Your task to perform on an android device: change the clock display to digital Image 0: 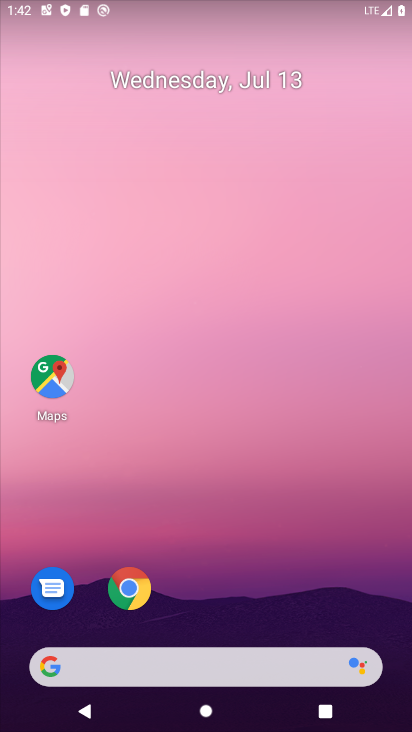
Step 0: drag from (402, 665) to (347, 172)
Your task to perform on an android device: change the clock display to digital Image 1: 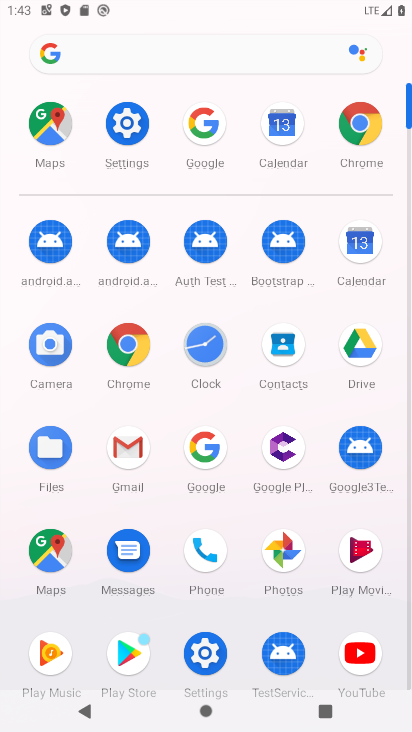
Step 1: click (133, 131)
Your task to perform on an android device: change the clock display to digital Image 2: 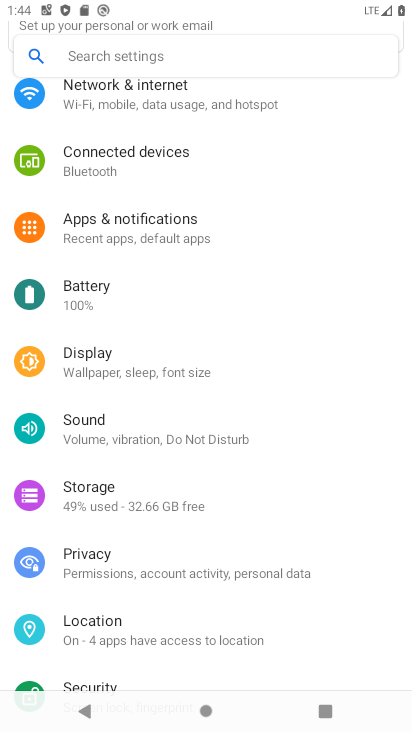
Step 2: click (89, 361)
Your task to perform on an android device: change the clock display to digital Image 3: 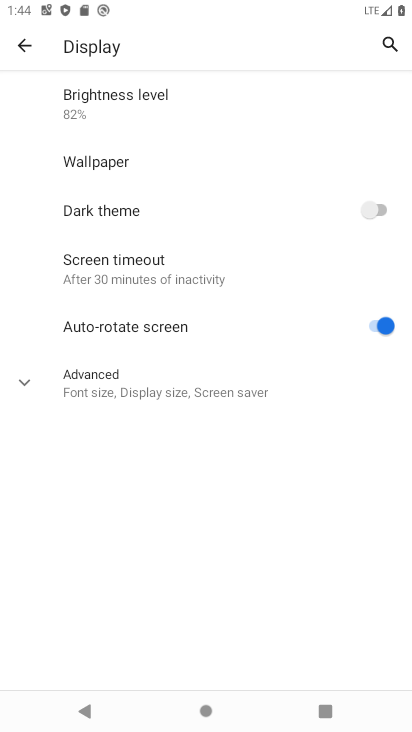
Step 3: click (19, 383)
Your task to perform on an android device: change the clock display to digital Image 4: 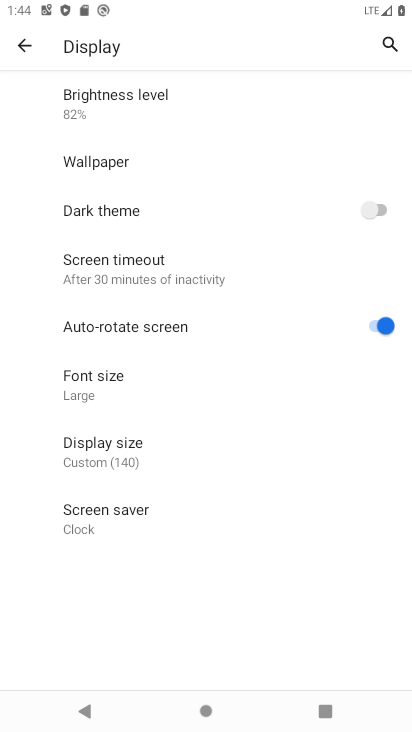
Step 4: task complete